Your task to perform on an android device: Clear the cart on ebay.com. Search for usb-b on ebay.com, select the first entry, add it to the cart, then select checkout. Image 0: 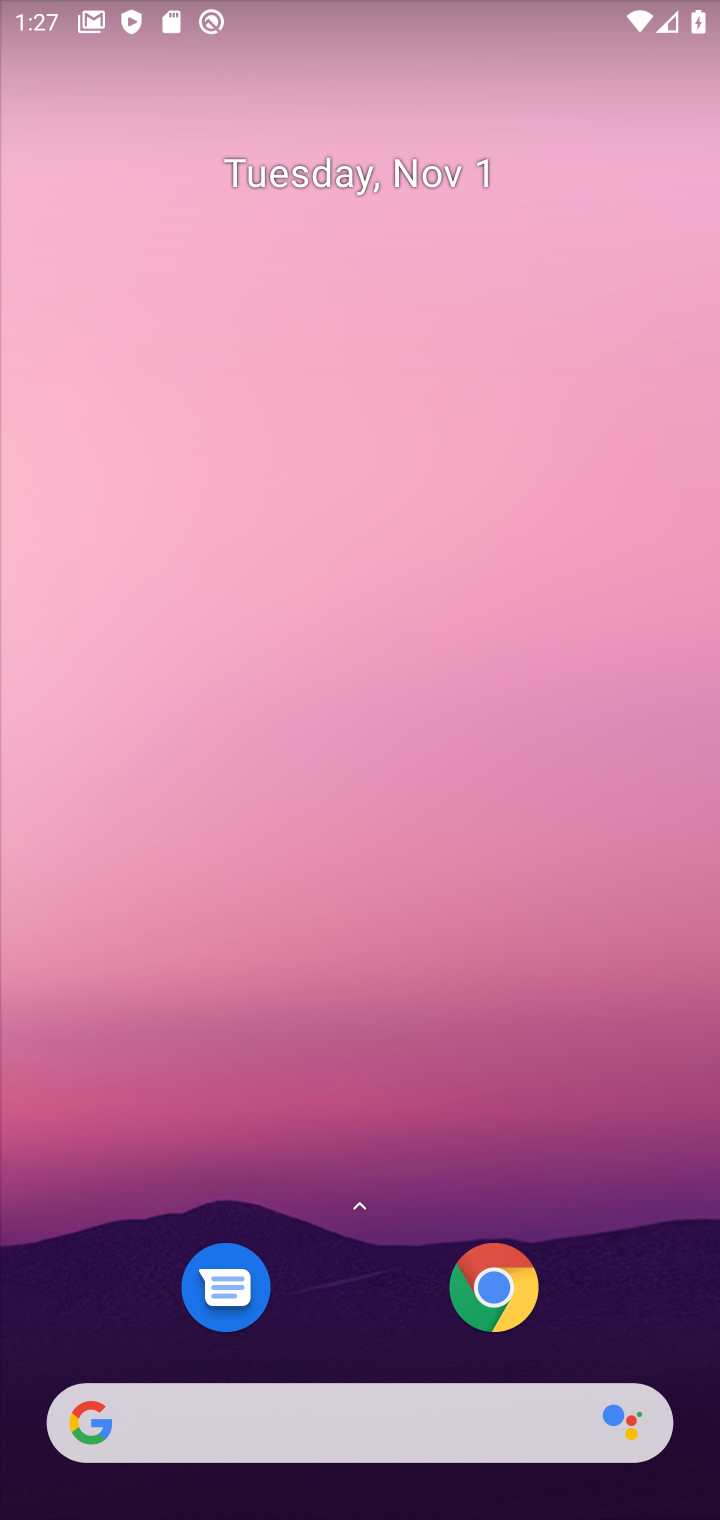
Step 0: drag from (376, 1007) to (409, 125)
Your task to perform on an android device: Clear the cart on ebay.com. Search for usb-b on ebay.com, select the first entry, add it to the cart, then select checkout. Image 1: 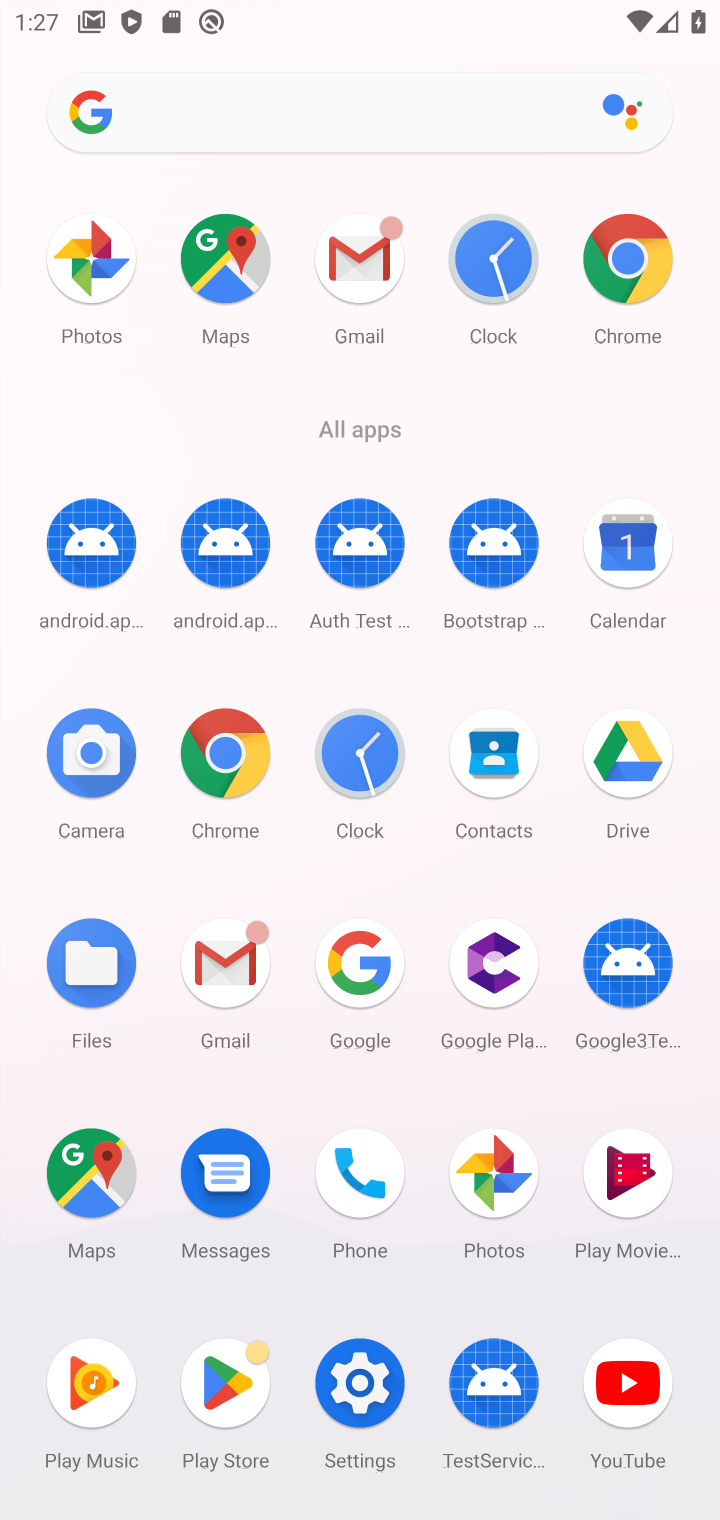
Step 1: click (233, 744)
Your task to perform on an android device: Clear the cart on ebay.com. Search for usb-b on ebay.com, select the first entry, add it to the cart, then select checkout. Image 2: 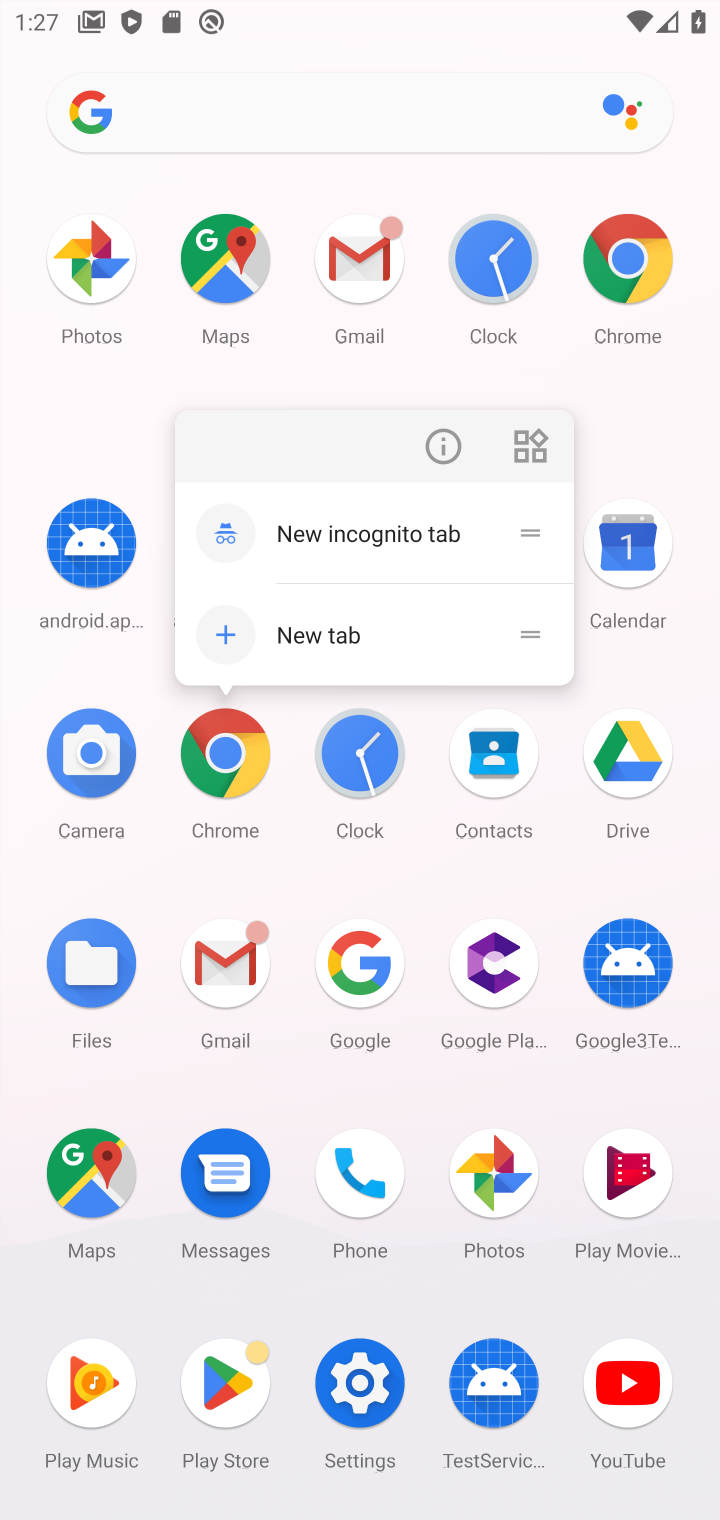
Step 2: click (204, 748)
Your task to perform on an android device: Clear the cart on ebay.com. Search for usb-b on ebay.com, select the first entry, add it to the cart, then select checkout. Image 3: 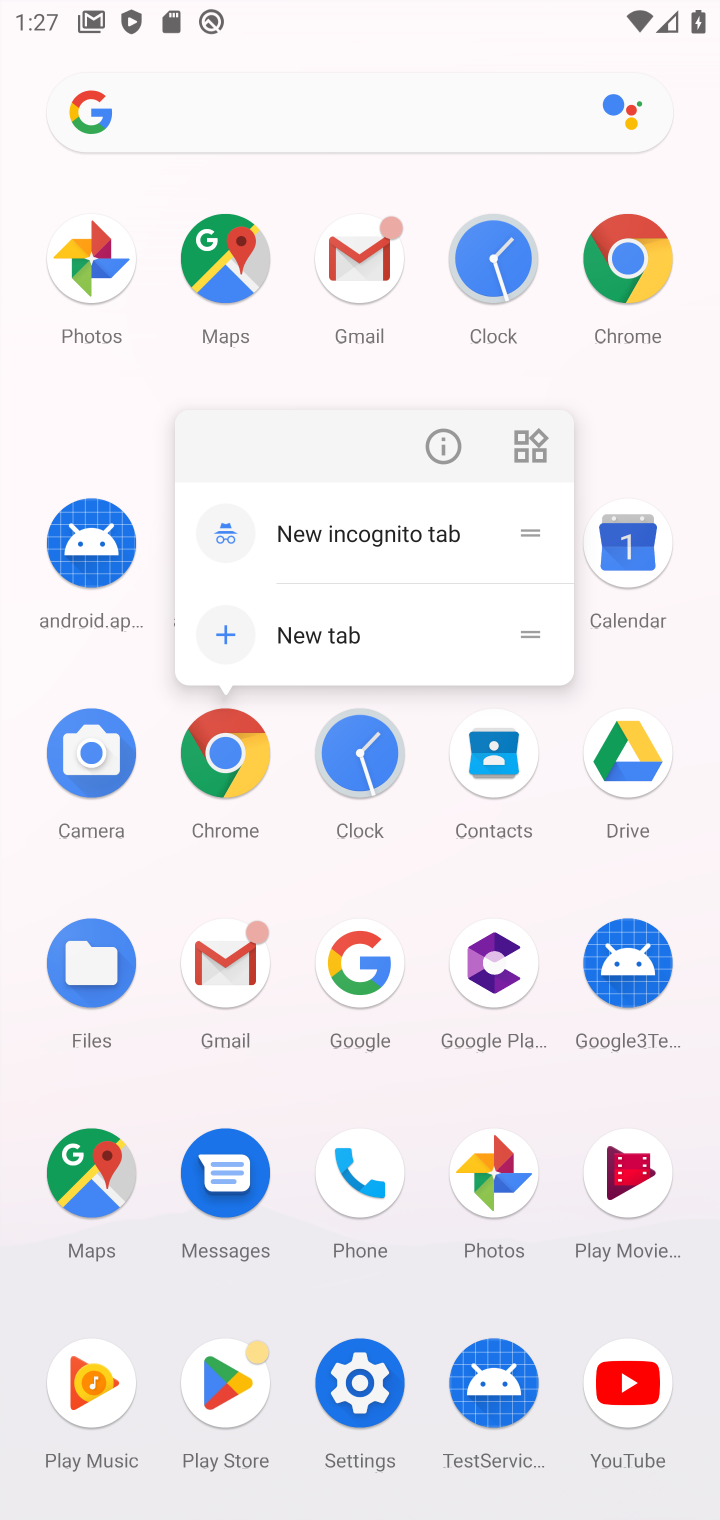
Step 3: click (232, 761)
Your task to perform on an android device: Clear the cart on ebay.com. Search for usb-b on ebay.com, select the first entry, add it to the cart, then select checkout. Image 4: 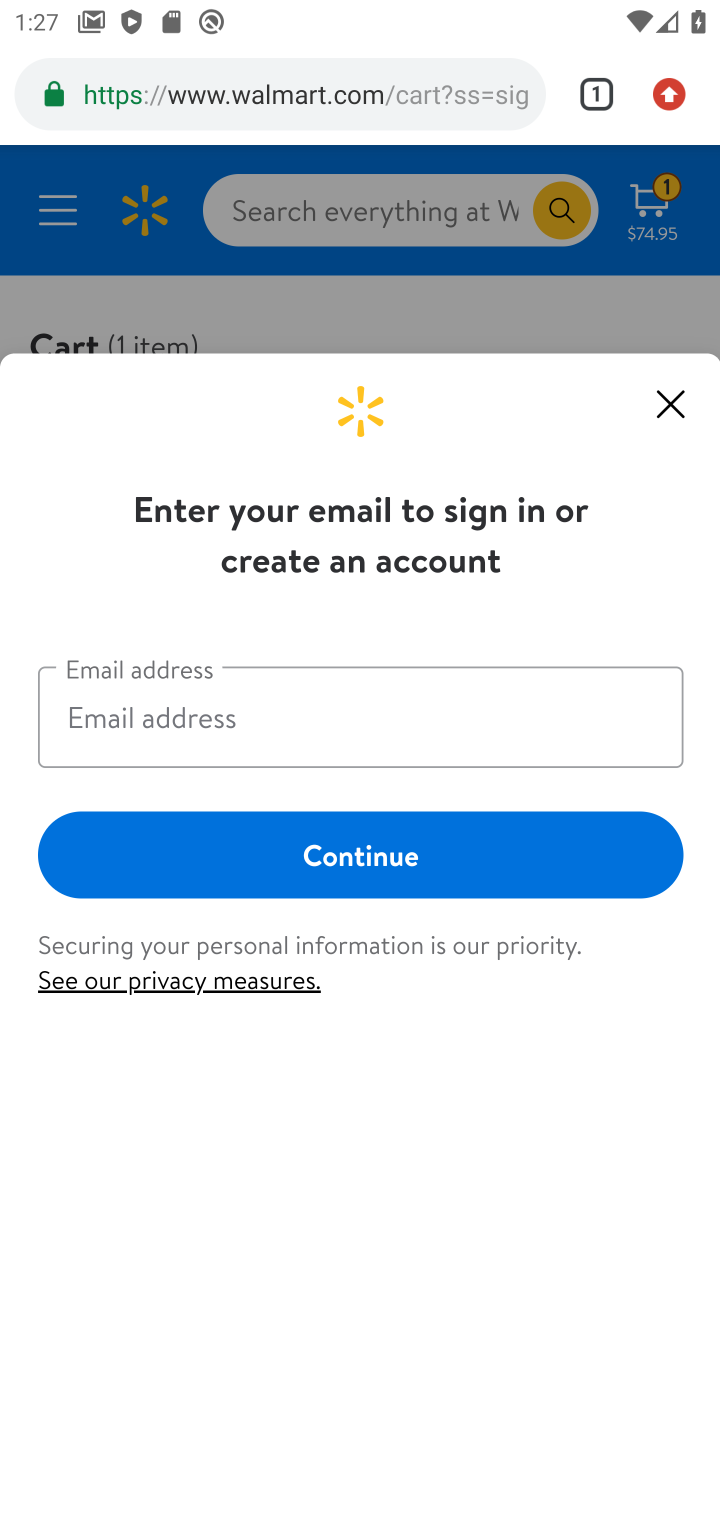
Step 4: click (370, 106)
Your task to perform on an android device: Clear the cart on ebay.com. Search for usb-b on ebay.com, select the first entry, add it to the cart, then select checkout. Image 5: 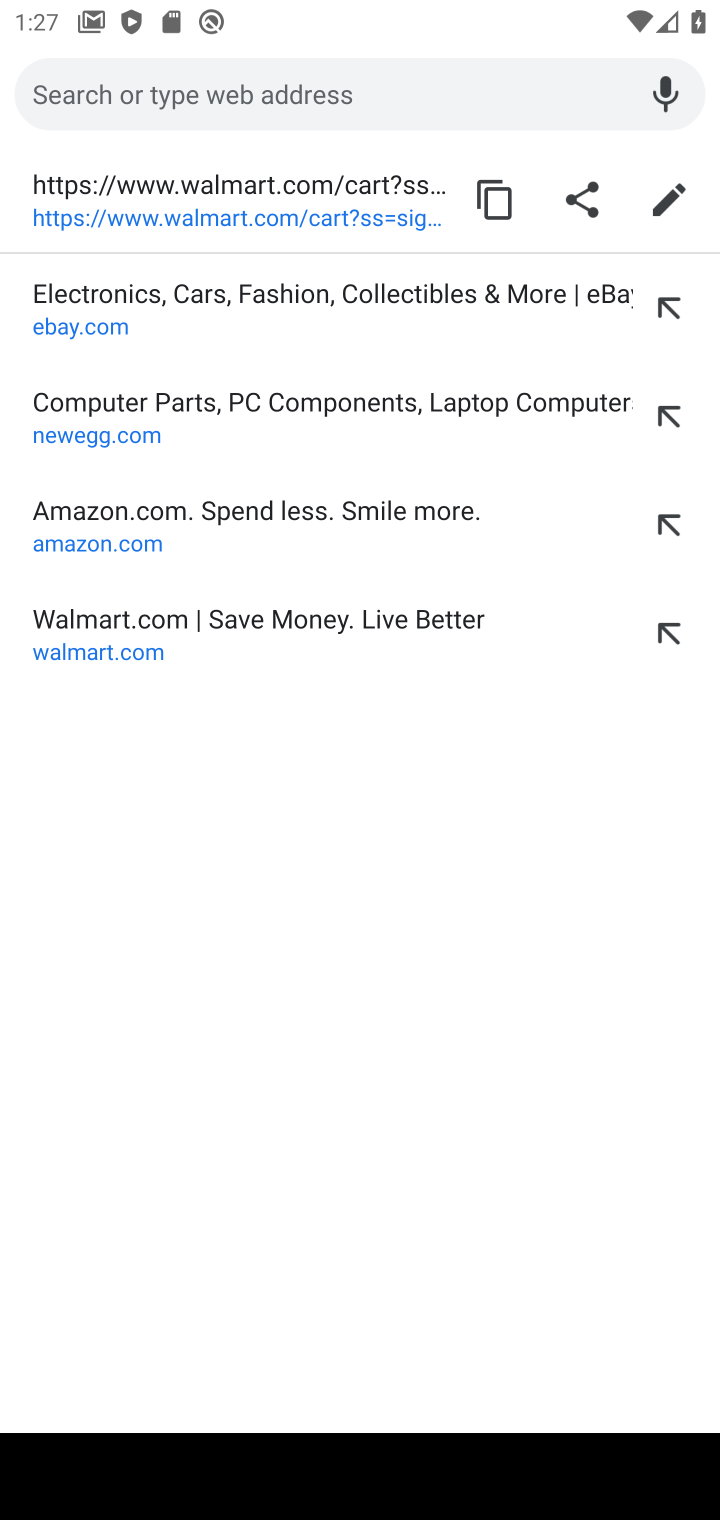
Step 5: type "ebay.com"
Your task to perform on an android device: Clear the cart on ebay.com. Search for usb-b on ebay.com, select the first entry, add it to the cart, then select checkout. Image 6: 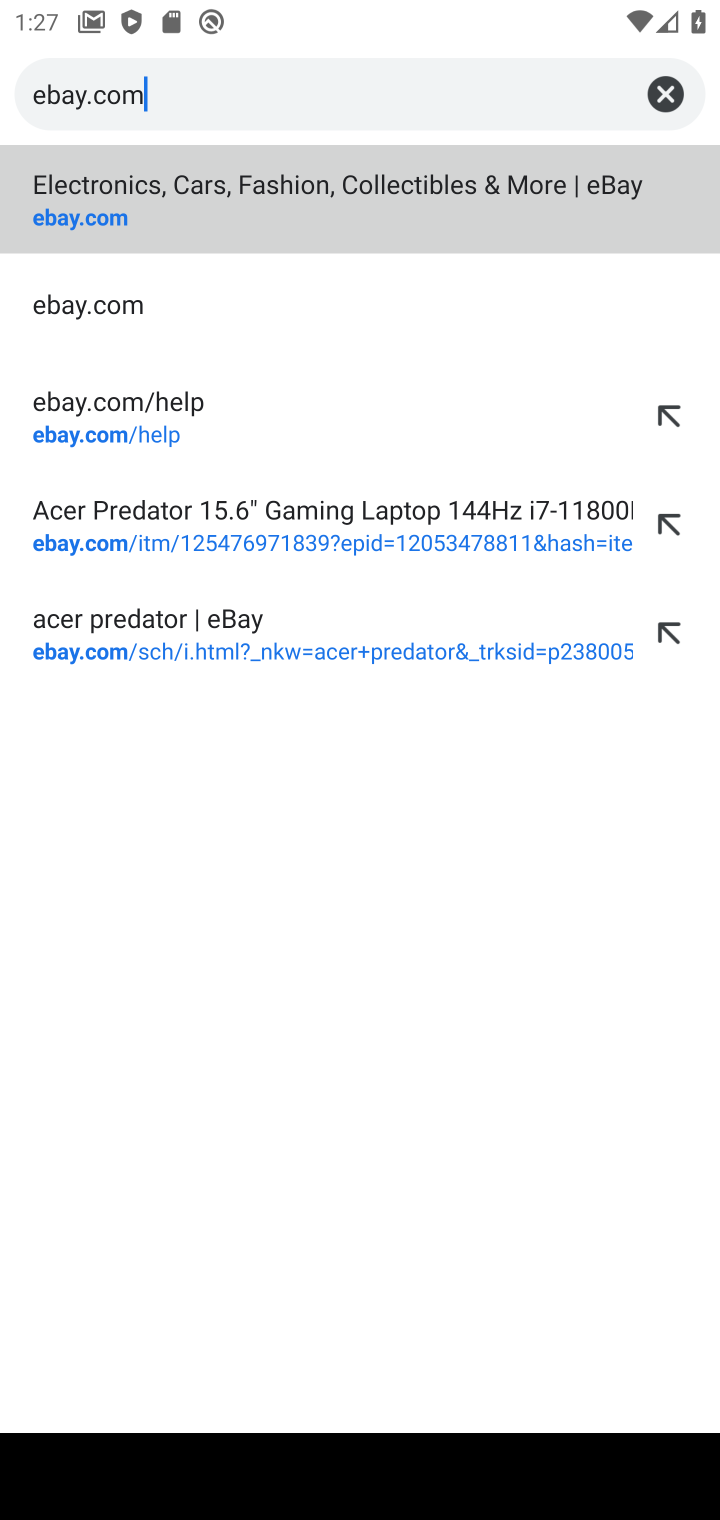
Step 6: press enter
Your task to perform on an android device: Clear the cart on ebay.com. Search for usb-b on ebay.com, select the first entry, add it to the cart, then select checkout. Image 7: 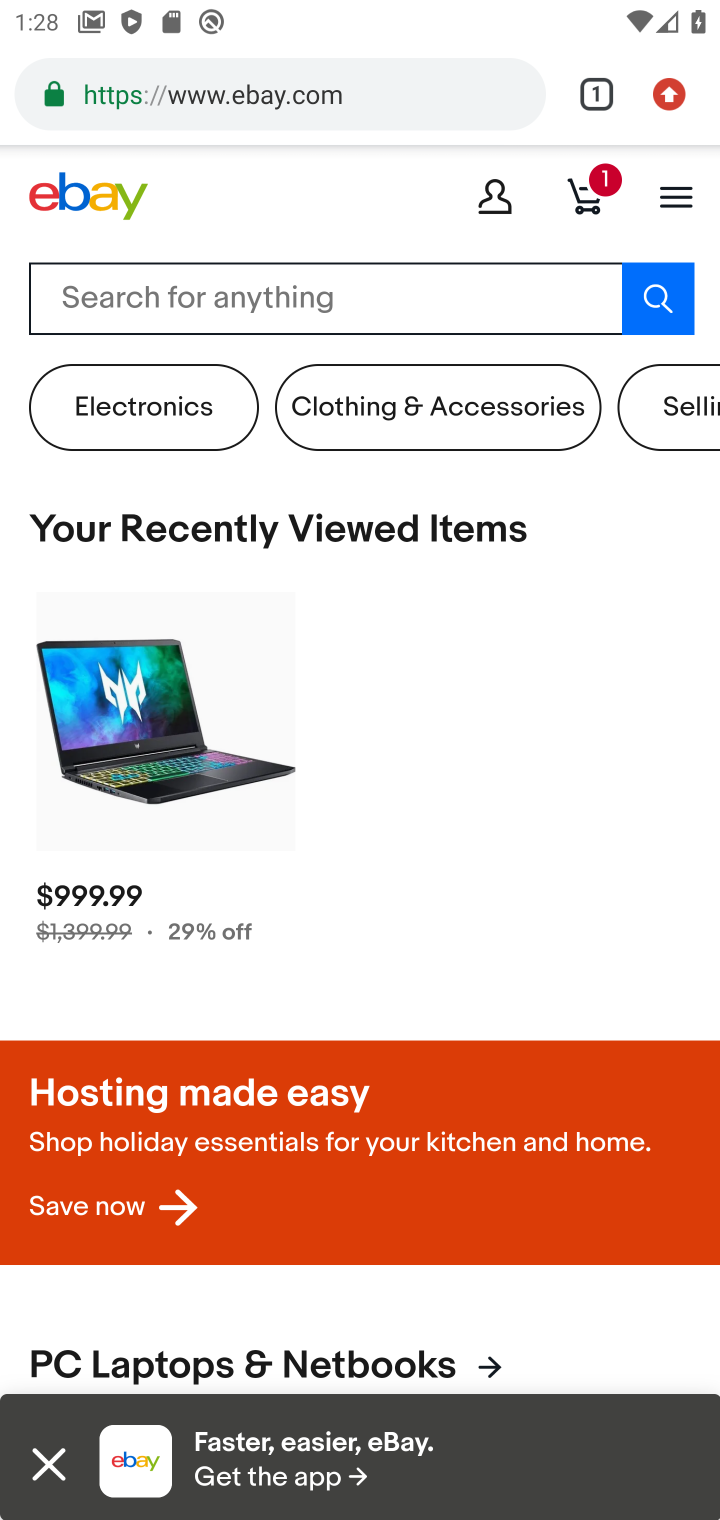
Step 7: click (595, 184)
Your task to perform on an android device: Clear the cart on ebay.com. Search for usb-b on ebay.com, select the first entry, add it to the cart, then select checkout. Image 8: 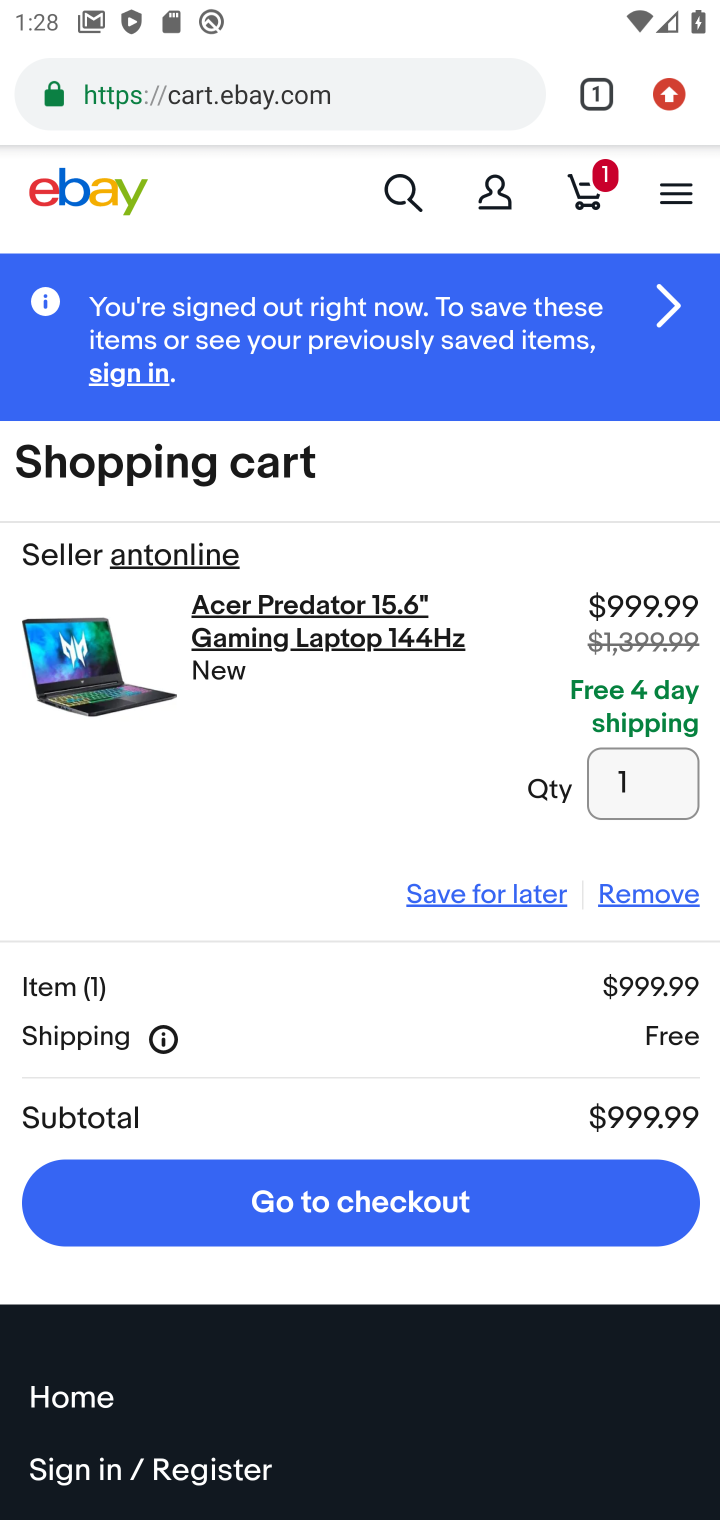
Step 8: click (695, 905)
Your task to perform on an android device: Clear the cart on ebay.com. Search for usb-b on ebay.com, select the first entry, add it to the cart, then select checkout. Image 9: 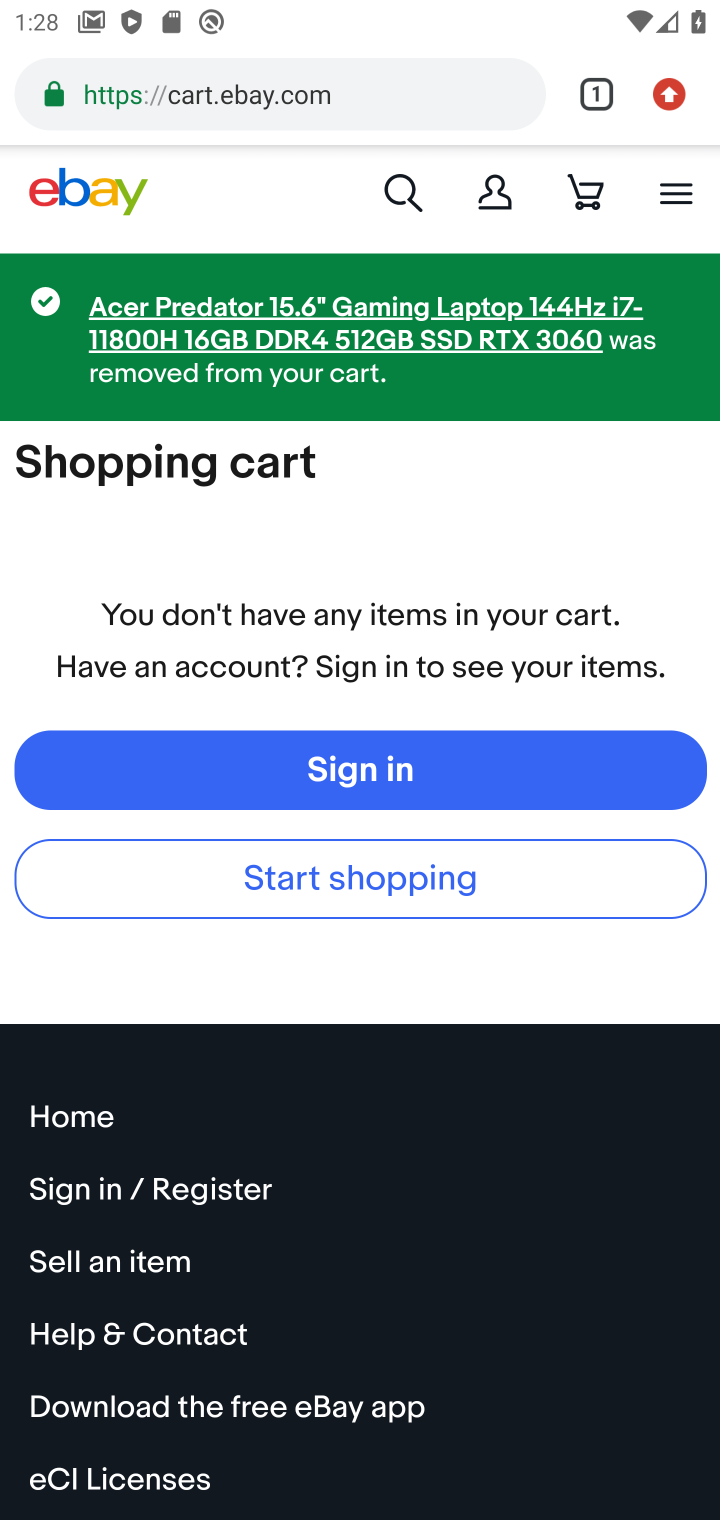
Step 9: click (400, 197)
Your task to perform on an android device: Clear the cart on ebay.com. Search for usb-b on ebay.com, select the first entry, add it to the cart, then select checkout. Image 10: 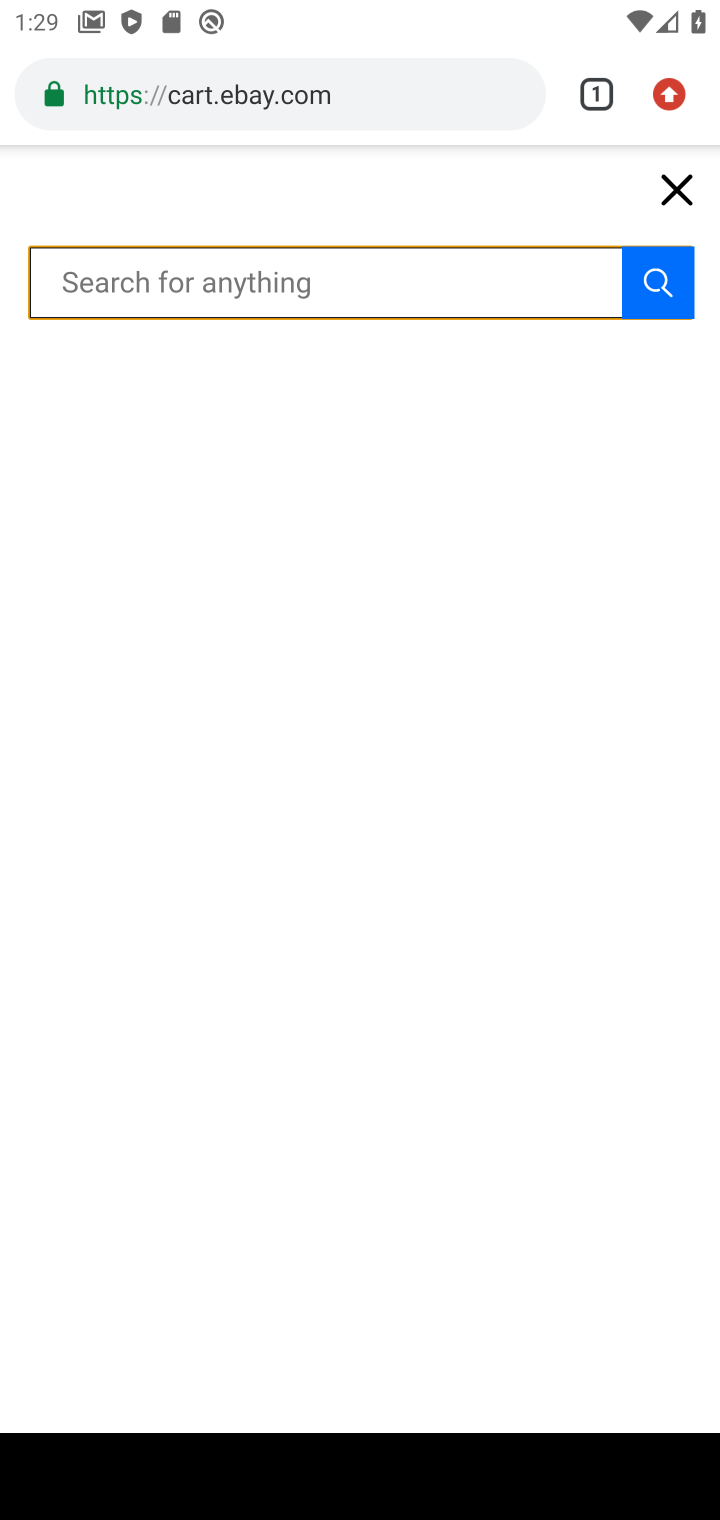
Step 10: type "usb- b"
Your task to perform on an android device: Clear the cart on ebay.com. Search for usb-b on ebay.com, select the first entry, add it to the cart, then select checkout. Image 11: 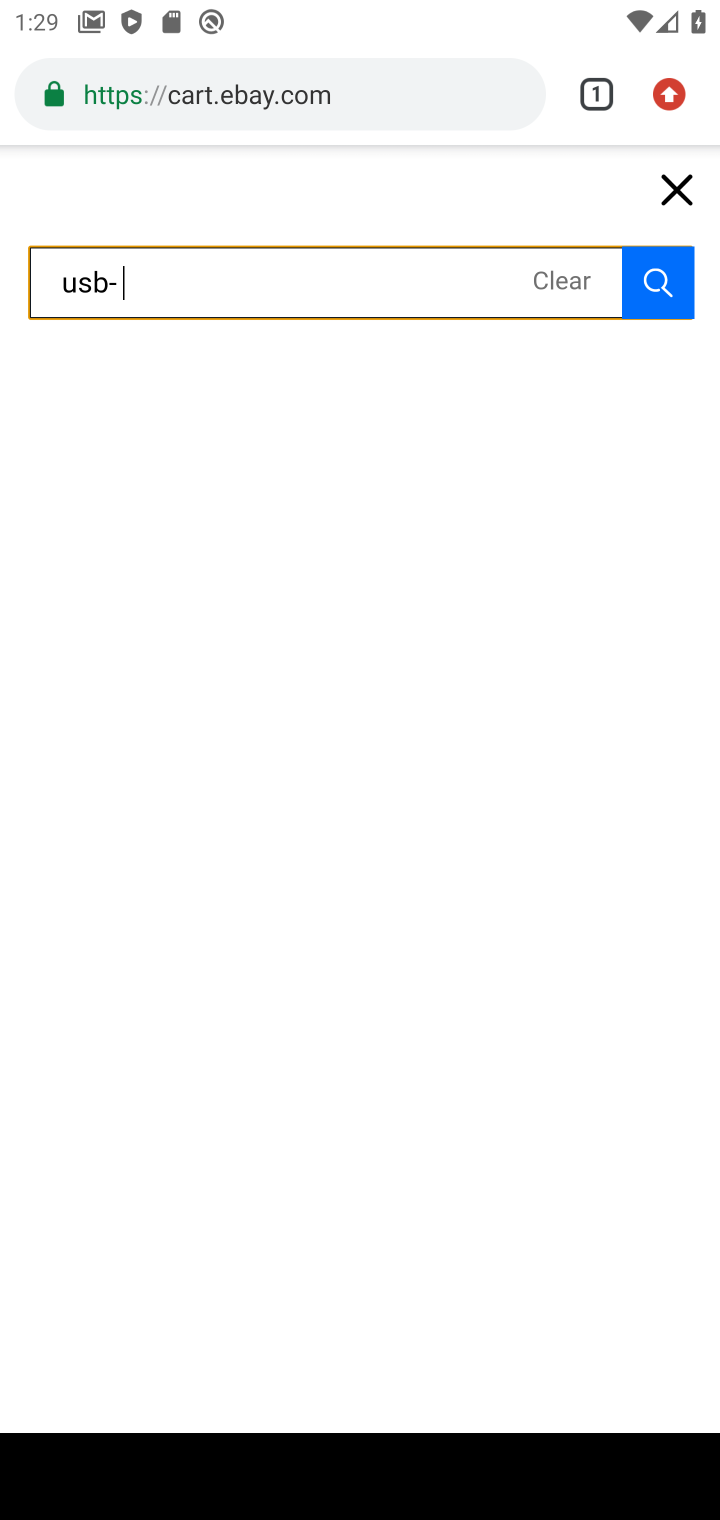
Step 11: type ""
Your task to perform on an android device: Clear the cart on ebay.com. Search for usb-b on ebay.com, select the first entry, add it to the cart, then select checkout. Image 12: 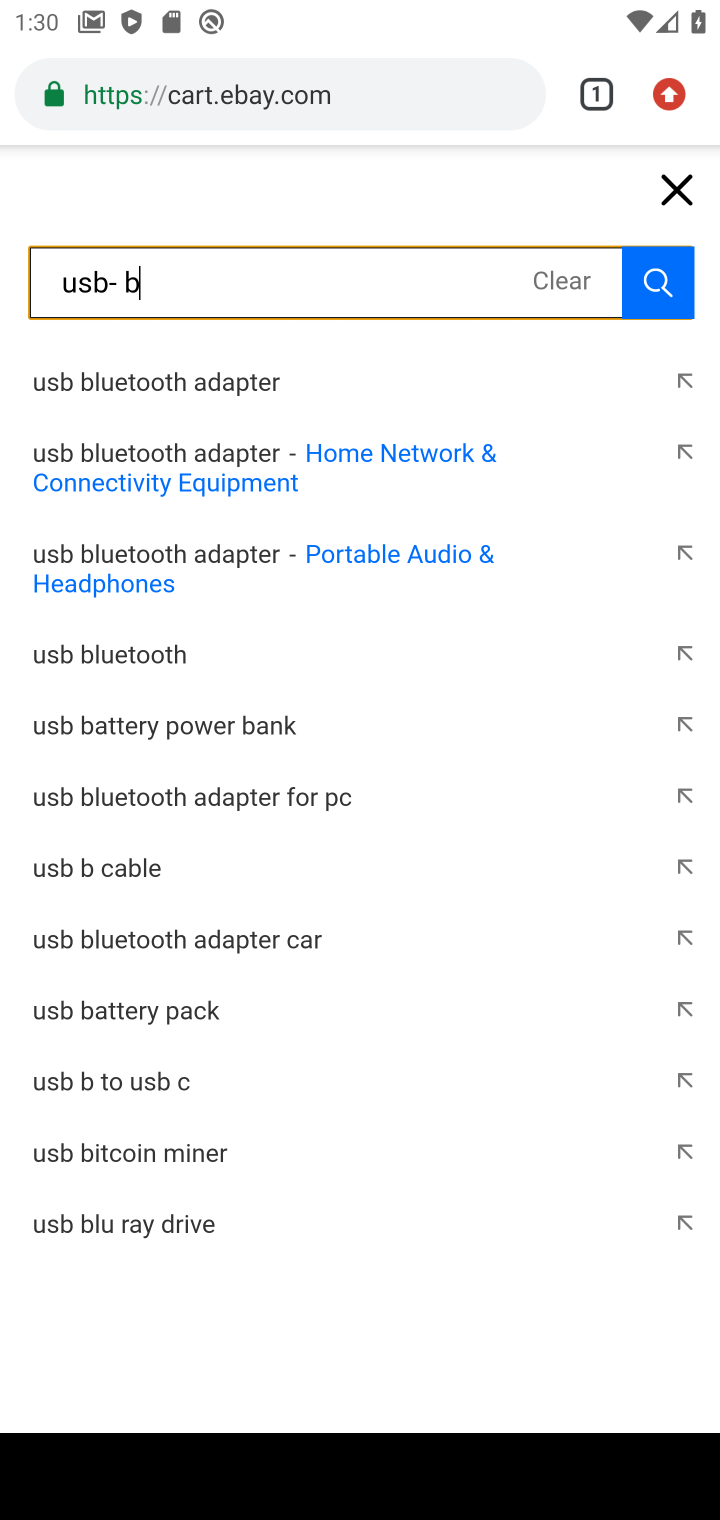
Step 12: press enter
Your task to perform on an android device: Clear the cart on ebay.com. Search for usb-b on ebay.com, select the first entry, add it to the cart, then select checkout. Image 13: 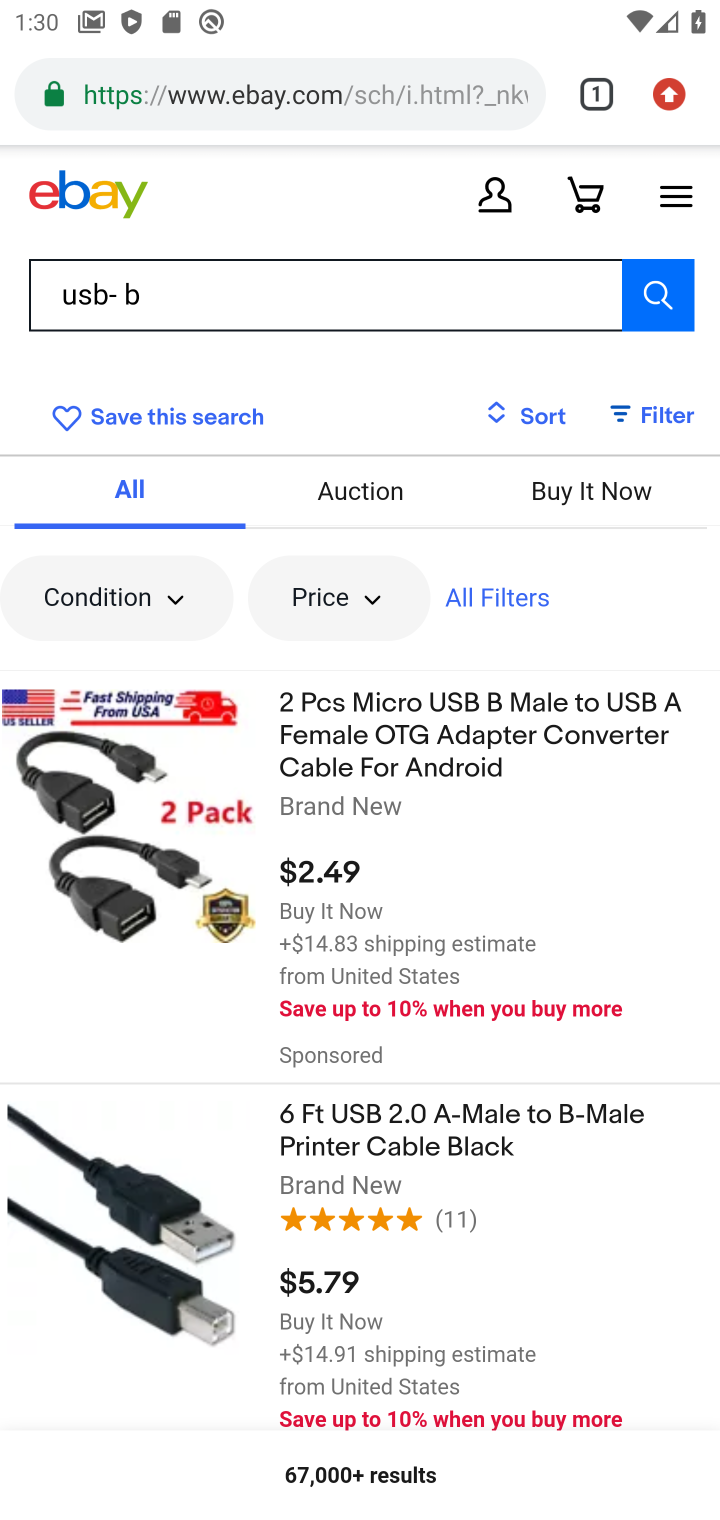
Step 13: click (99, 787)
Your task to perform on an android device: Clear the cart on ebay.com. Search for usb-b on ebay.com, select the first entry, add it to the cart, then select checkout. Image 14: 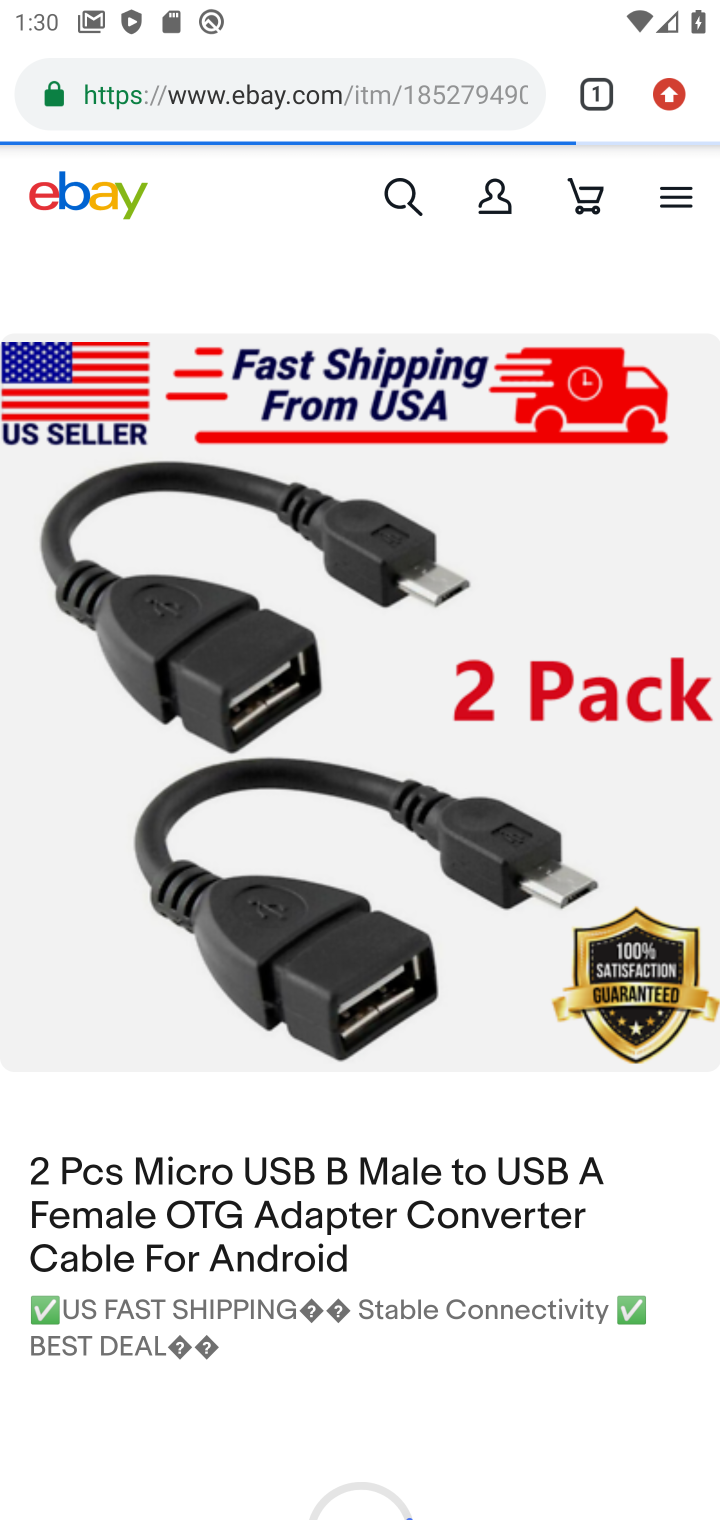
Step 14: drag from (542, 1009) to (529, 492)
Your task to perform on an android device: Clear the cart on ebay.com. Search for usb-b on ebay.com, select the first entry, add it to the cart, then select checkout. Image 15: 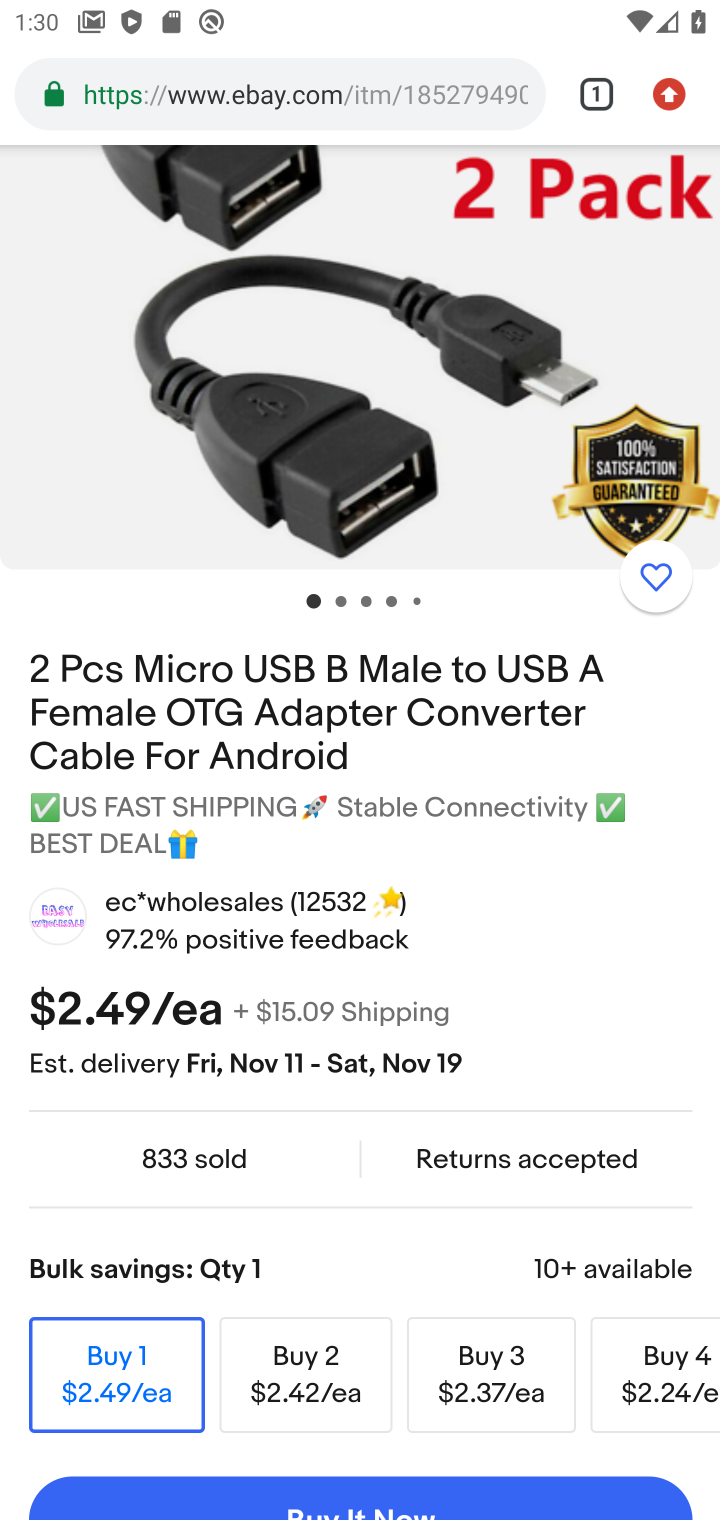
Step 15: drag from (525, 1354) to (512, 517)
Your task to perform on an android device: Clear the cart on ebay.com. Search for usb-b on ebay.com, select the first entry, add it to the cart, then select checkout. Image 16: 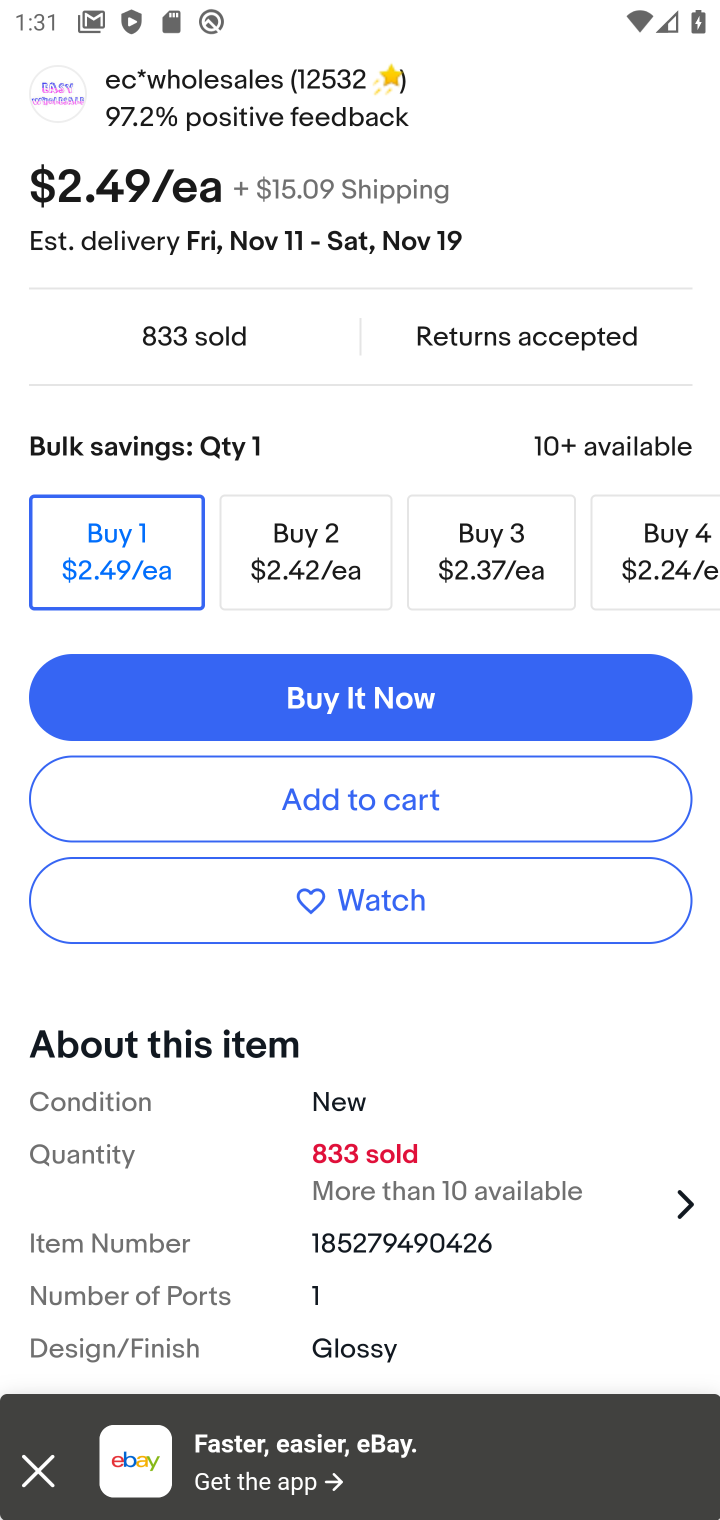
Step 16: click (461, 795)
Your task to perform on an android device: Clear the cart on ebay.com. Search for usb-b on ebay.com, select the first entry, add it to the cart, then select checkout. Image 17: 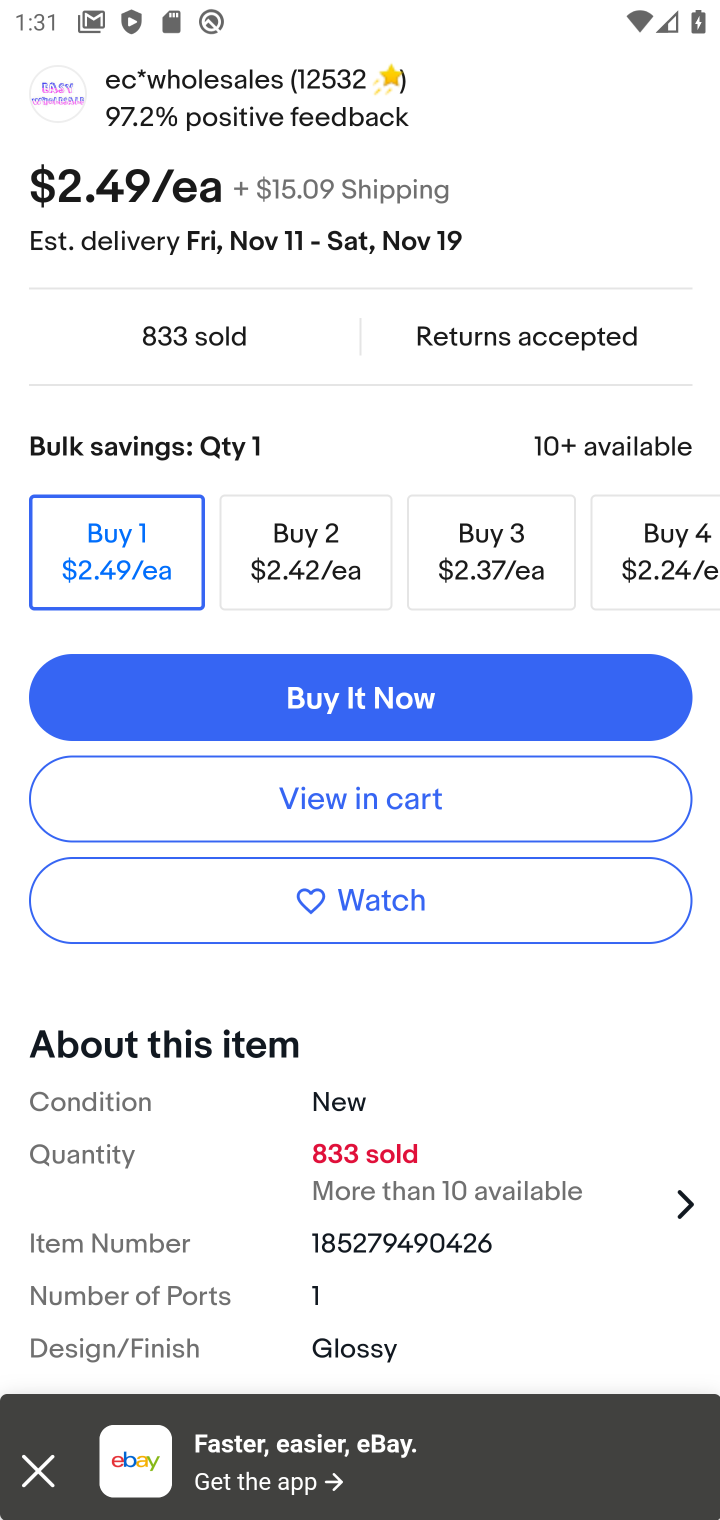
Step 17: click (514, 811)
Your task to perform on an android device: Clear the cart on ebay.com. Search for usb-b on ebay.com, select the first entry, add it to the cart, then select checkout. Image 18: 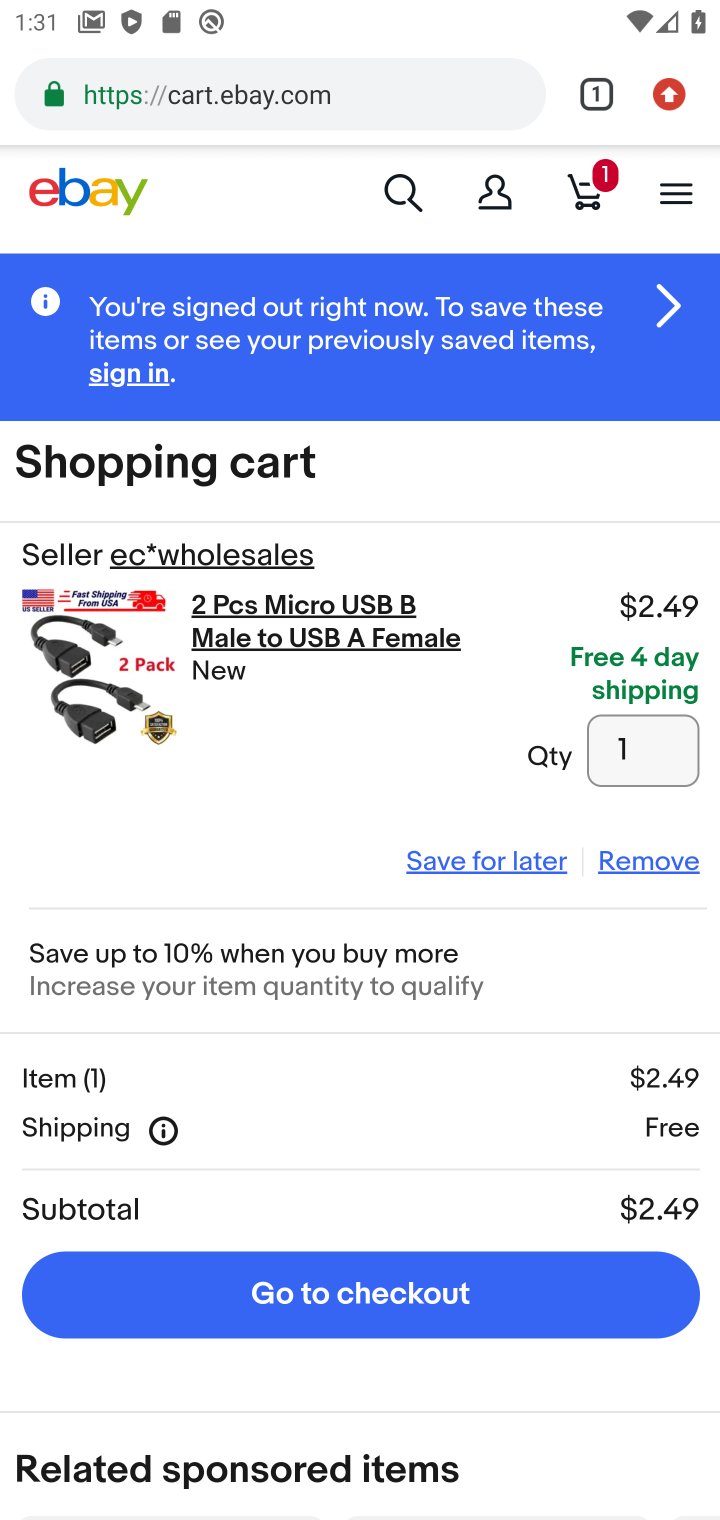
Step 18: click (378, 1299)
Your task to perform on an android device: Clear the cart on ebay.com. Search for usb-b on ebay.com, select the first entry, add it to the cart, then select checkout. Image 19: 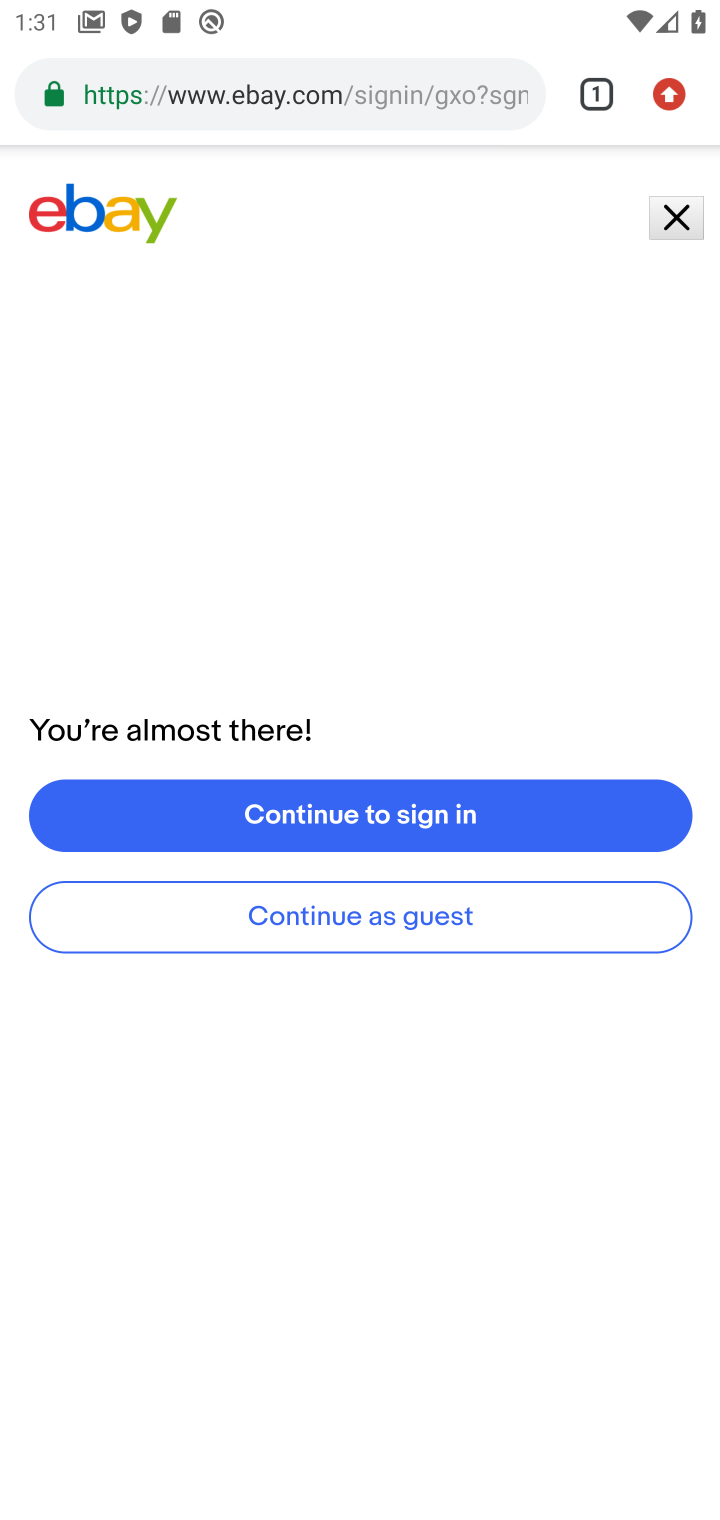
Step 19: task complete